Your task to perform on an android device: turn on sleep mode Image 0: 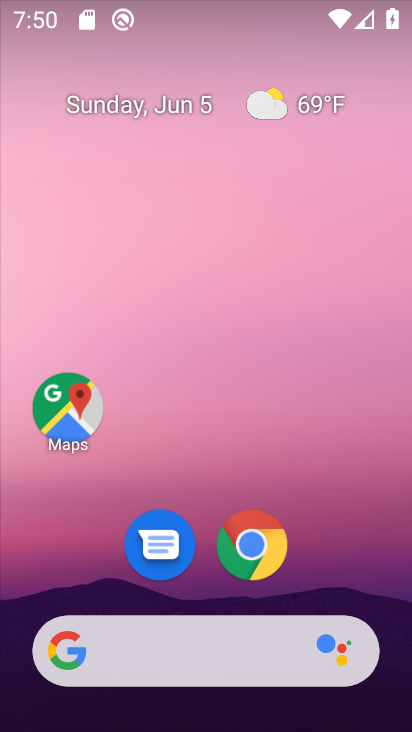
Step 0: drag from (351, 527) to (280, 7)
Your task to perform on an android device: turn on sleep mode Image 1: 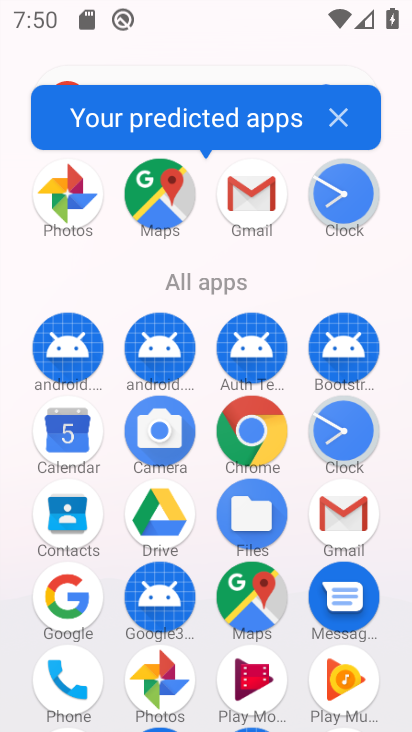
Step 1: drag from (297, 332) to (290, 86)
Your task to perform on an android device: turn on sleep mode Image 2: 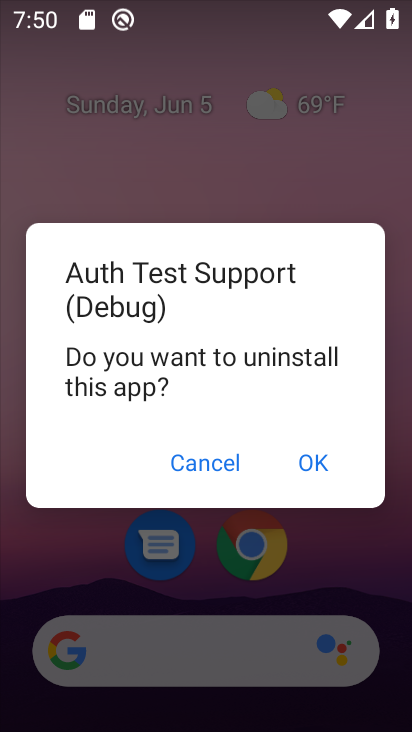
Step 2: click (213, 457)
Your task to perform on an android device: turn on sleep mode Image 3: 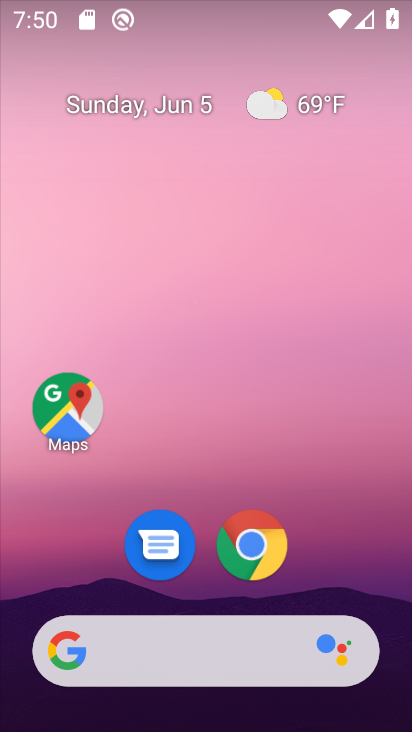
Step 3: drag from (332, 525) to (260, 36)
Your task to perform on an android device: turn on sleep mode Image 4: 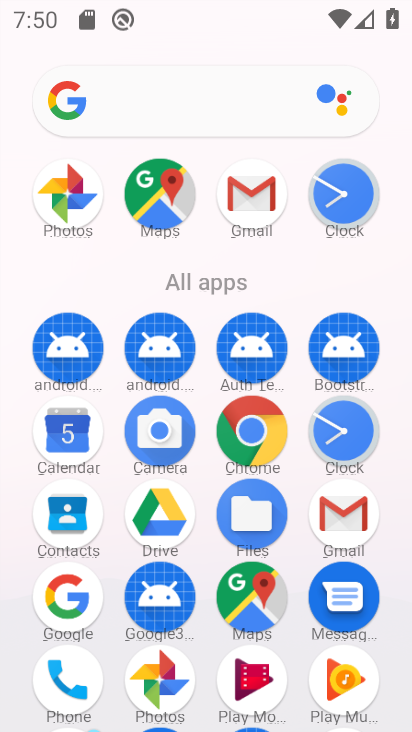
Step 4: drag from (285, 278) to (277, 68)
Your task to perform on an android device: turn on sleep mode Image 5: 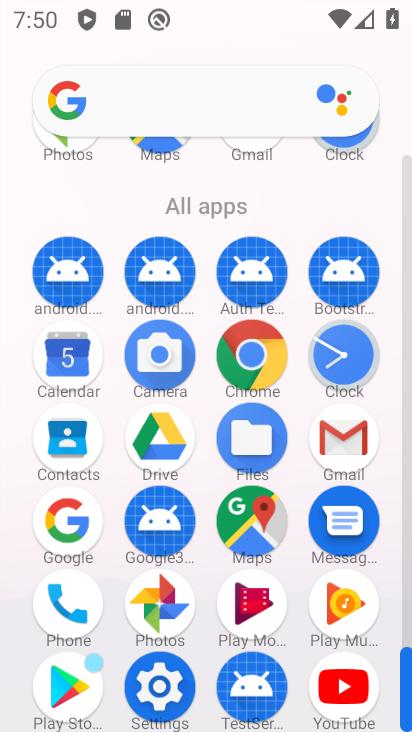
Step 5: click (157, 683)
Your task to perform on an android device: turn on sleep mode Image 6: 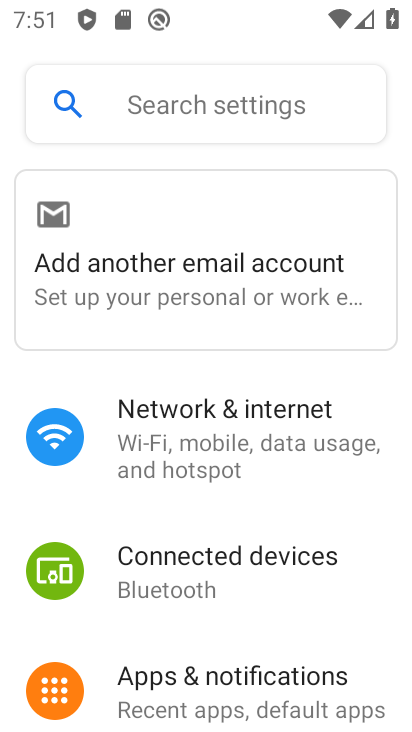
Step 6: drag from (231, 501) to (244, 389)
Your task to perform on an android device: turn on sleep mode Image 7: 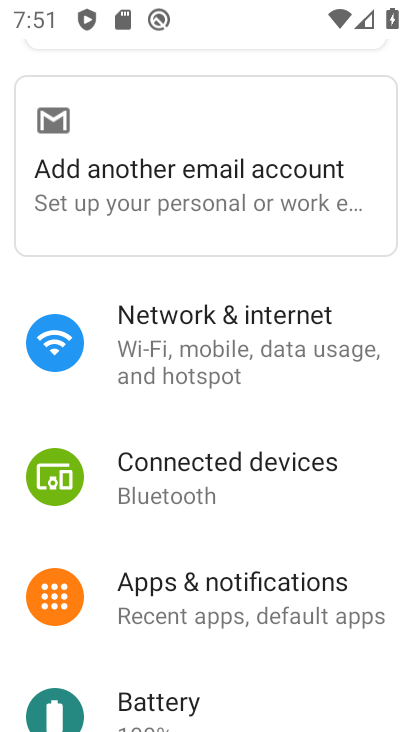
Step 7: drag from (213, 543) to (255, 445)
Your task to perform on an android device: turn on sleep mode Image 8: 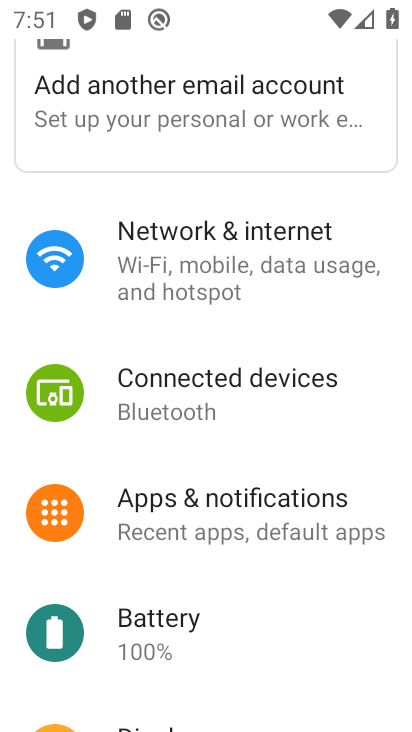
Step 8: drag from (198, 580) to (262, 462)
Your task to perform on an android device: turn on sleep mode Image 9: 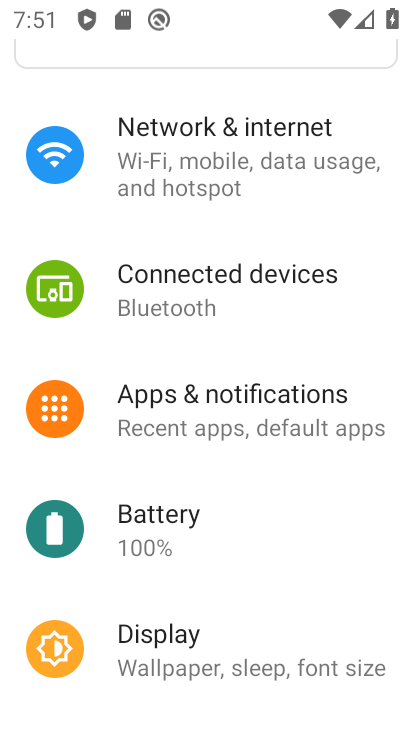
Step 9: drag from (206, 601) to (282, 477)
Your task to perform on an android device: turn on sleep mode Image 10: 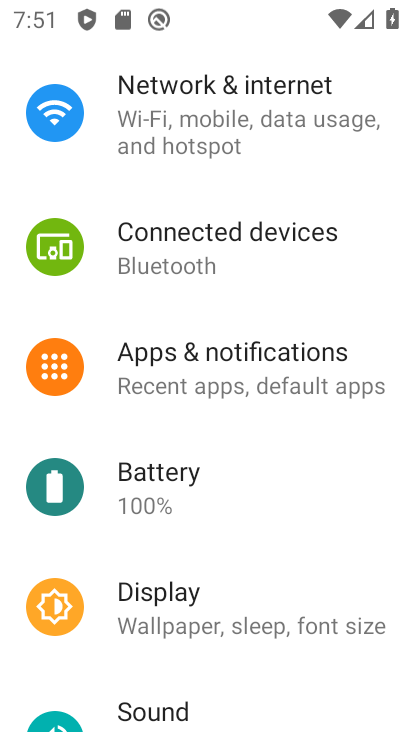
Step 10: drag from (203, 571) to (321, 435)
Your task to perform on an android device: turn on sleep mode Image 11: 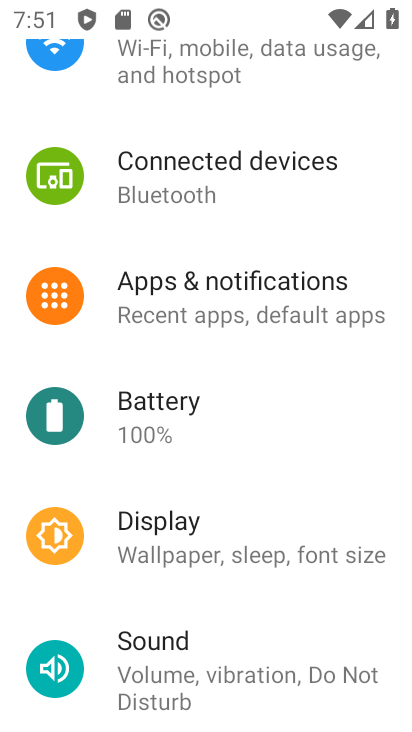
Step 11: drag from (242, 635) to (292, 512)
Your task to perform on an android device: turn on sleep mode Image 12: 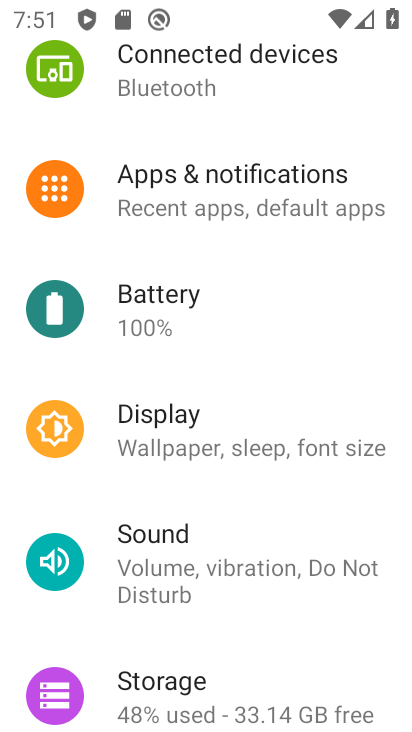
Step 12: click (249, 454)
Your task to perform on an android device: turn on sleep mode Image 13: 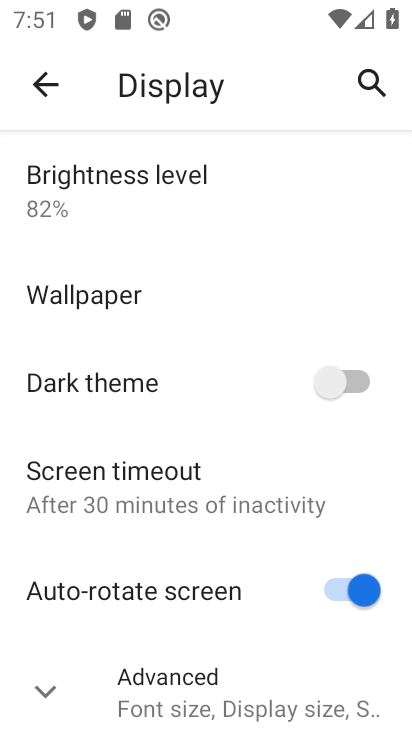
Step 13: drag from (141, 433) to (231, 297)
Your task to perform on an android device: turn on sleep mode Image 14: 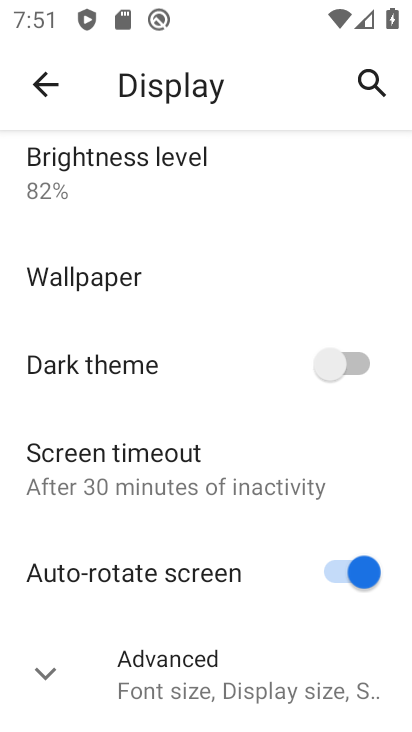
Step 14: click (162, 477)
Your task to perform on an android device: turn on sleep mode Image 15: 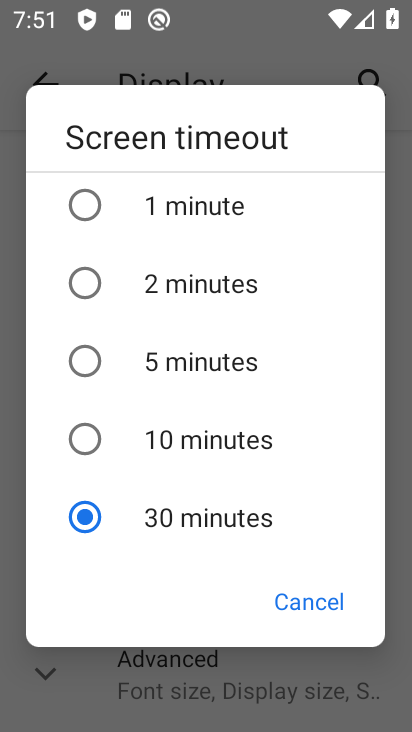
Step 15: click (331, 591)
Your task to perform on an android device: turn on sleep mode Image 16: 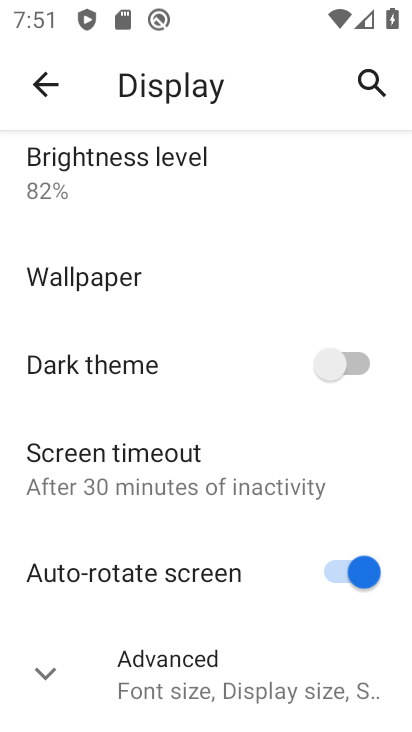
Step 16: click (261, 682)
Your task to perform on an android device: turn on sleep mode Image 17: 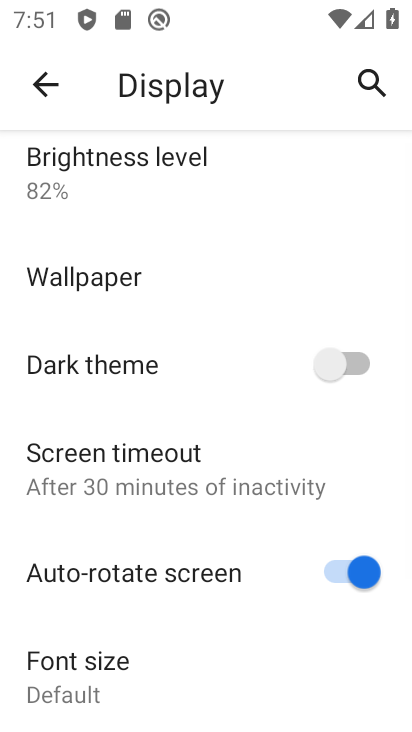
Step 17: task complete